Your task to perform on an android device: Open the Play Movies app and select the watchlist tab. Image 0: 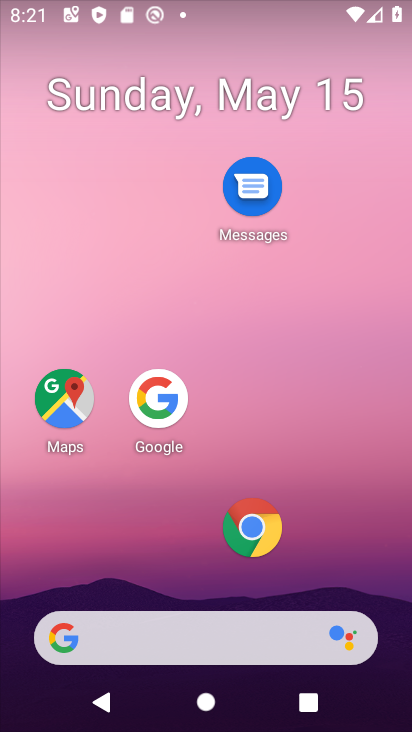
Step 0: press home button
Your task to perform on an android device: Open the Play Movies app and select the watchlist tab. Image 1: 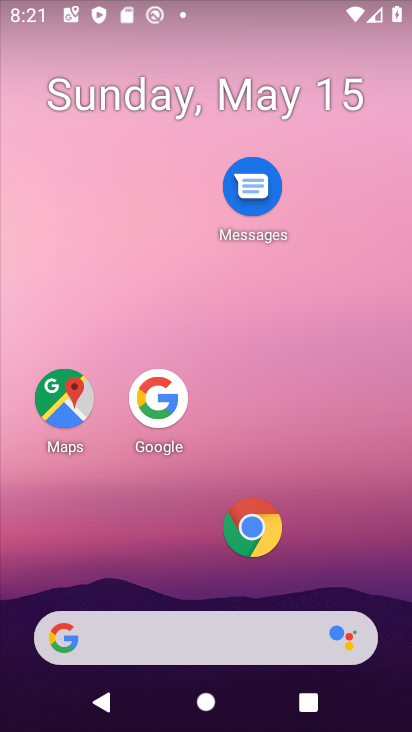
Step 1: drag from (175, 644) to (318, 190)
Your task to perform on an android device: Open the Play Movies app and select the watchlist tab. Image 2: 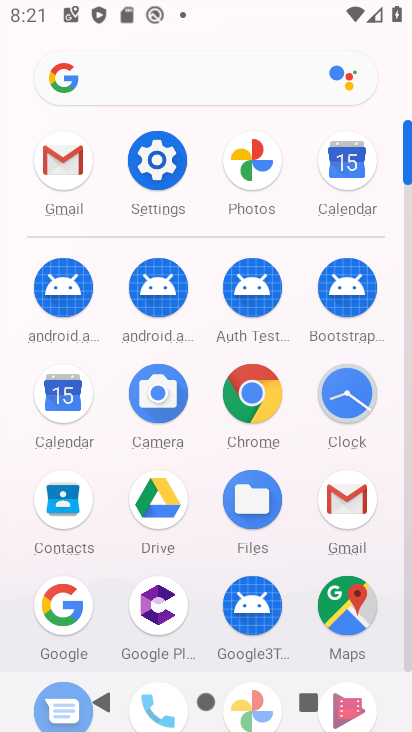
Step 2: drag from (298, 625) to (410, 188)
Your task to perform on an android device: Open the Play Movies app and select the watchlist tab. Image 3: 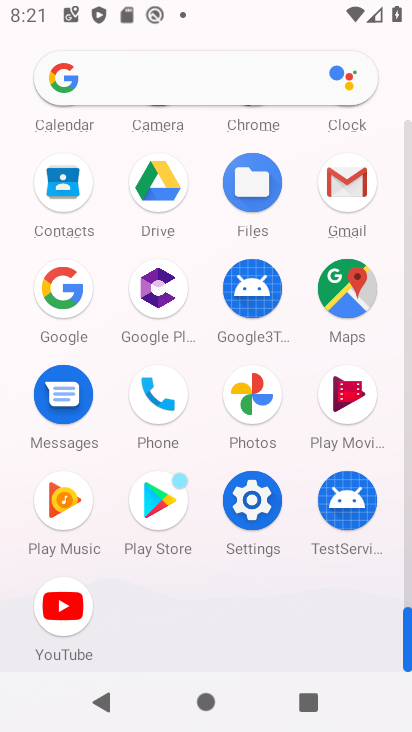
Step 3: click (339, 420)
Your task to perform on an android device: Open the Play Movies app and select the watchlist tab. Image 4: 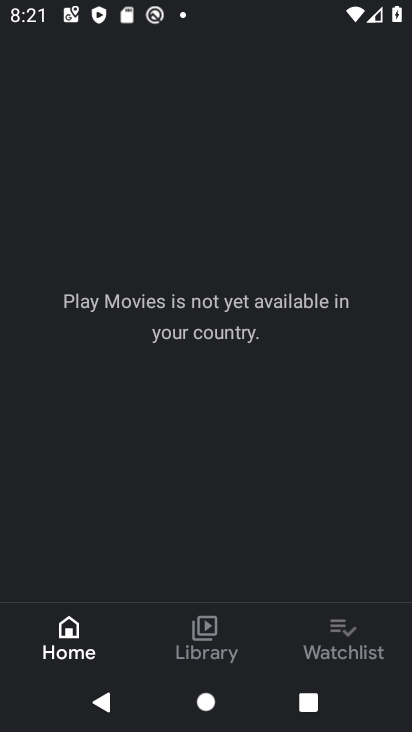
Step 4: click (357, 641)
Your task to perform on an android device: Open the Play Movies app and select the watchlist tab. Image 5: 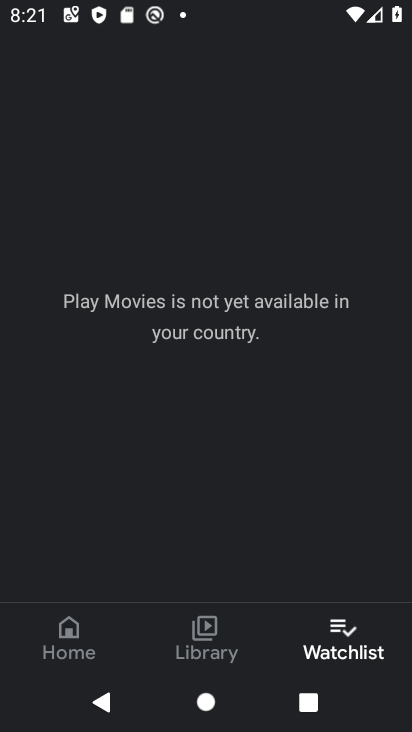
Step 5: task complete